Your task to perform on an android device: turn pop-ups on in chrome Image 0: 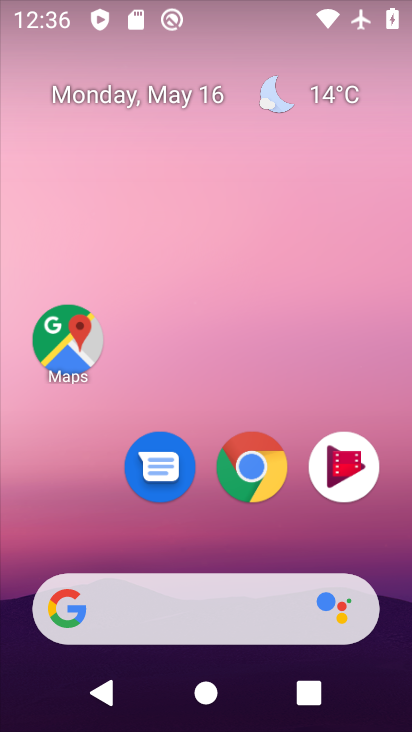
Step 0: drag from (258, 502) to (387, 120)
Your task to perform on an android device: turn pop-ups on in chrome Image 1: 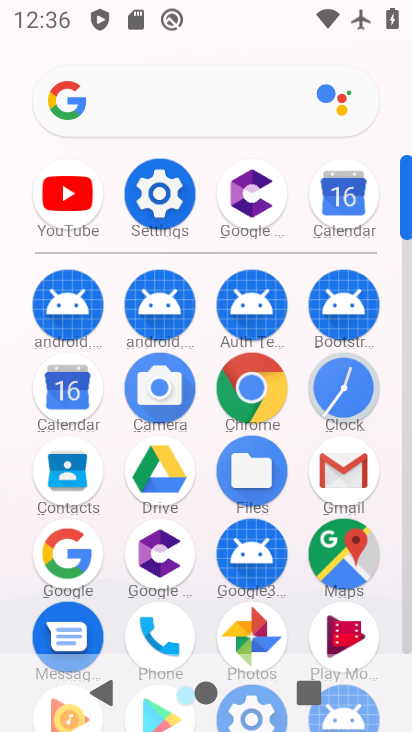
Step 1: click (269, 368)
Your task to perform on an android device: turn pop-ups on in chrome Image 2: 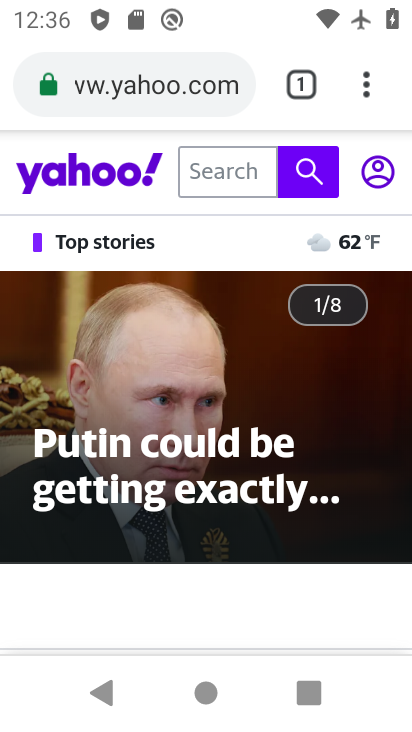
Step 2: click (364, 83)
Your task to perform on an android device: turn pop-ups on in chrome Image 3: 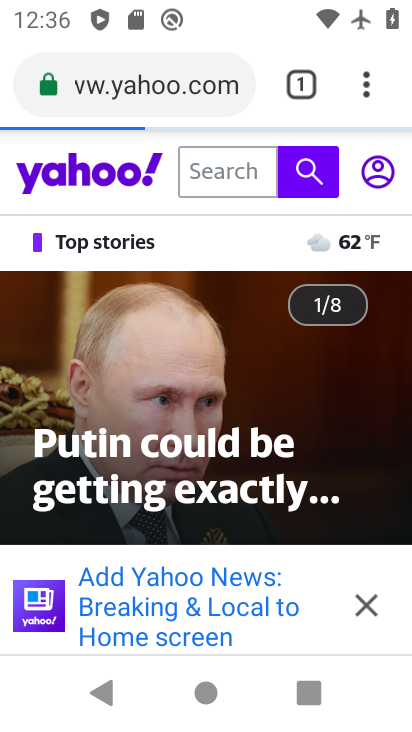
Step 3: click (357, 83)
Your task to perform on an android device: turn pop-ups on in chrome Image 4: 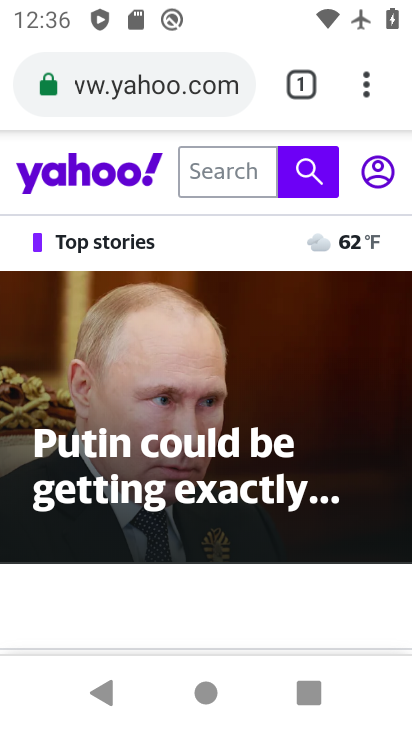
Step 4: click (361, 78)
Your task to perform on an android device: turn pop-ups on in chrome Image 5: 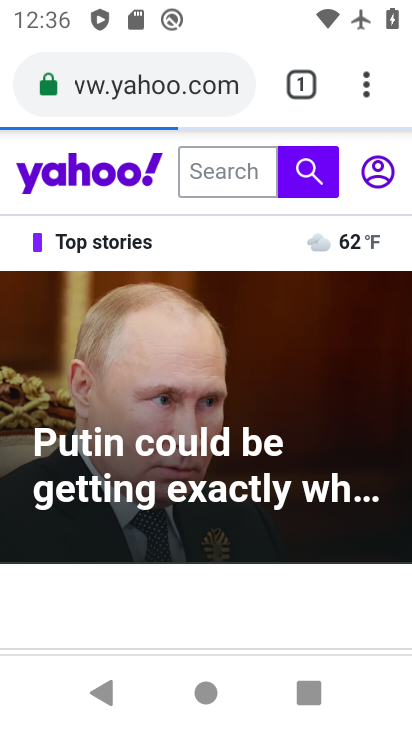
Step 5: click (361, 76)
Your task to perform on an android device: turn pop-ups on in chrome Image 6: 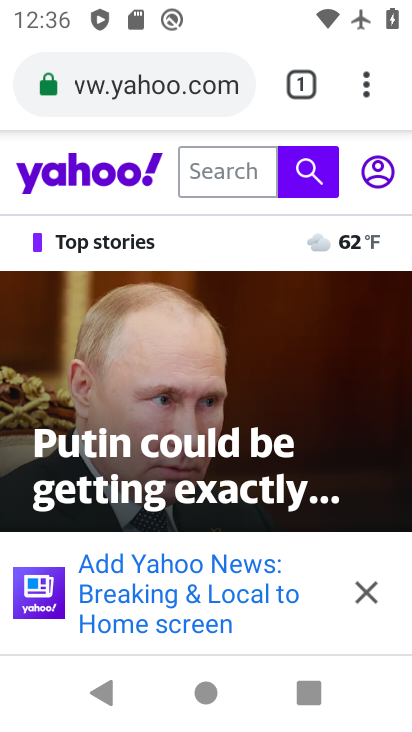
Step 6: click (352, 80)
Your task to perform on an android device: turn pop-ups on in chrome Image 7: 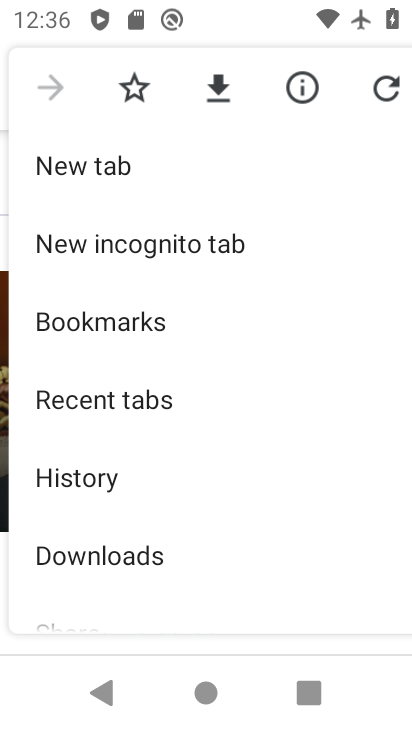
Step 7: drag from (165, 524) to (283, 207)
Your task to perform on an android device: turn pop-ups on in chrome Image 8: 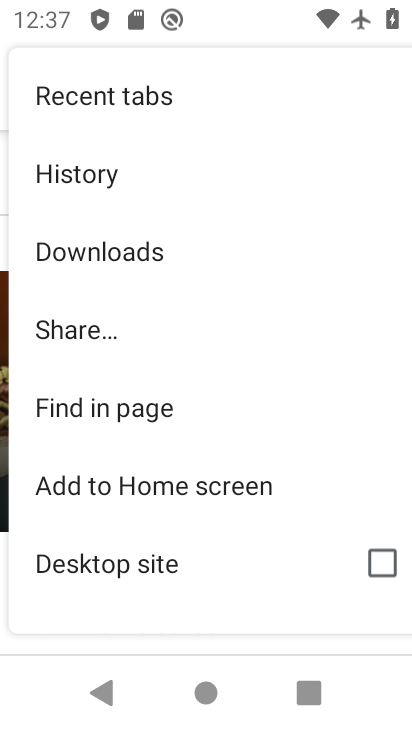
Step 8: drag from (158, 552) to (289, 239)
Your task to perform on an android device: turn pop-ups on in chrome Image 9: 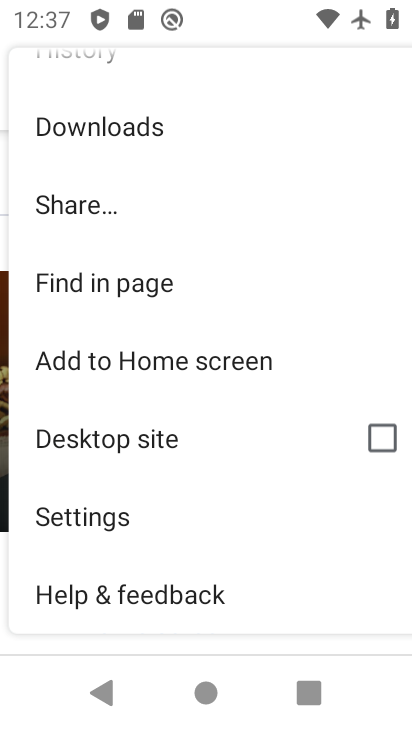
Step 9: click (66, 509)
Your task to perform on an android device: turn pop-ups on in chrome Image 10: 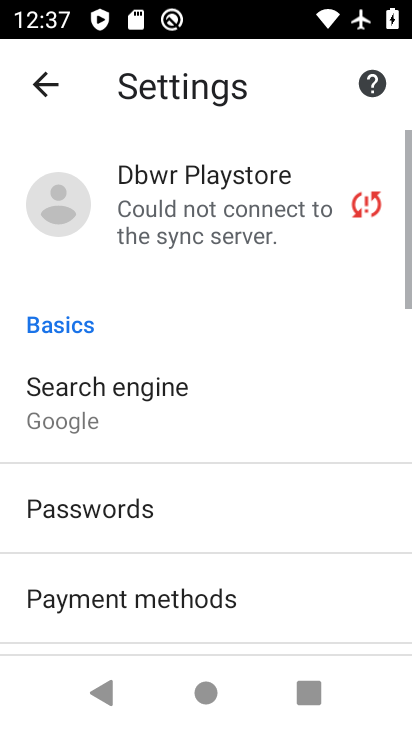
Step 10: drag from (174, 599) to (309, 199)
Your task to perform on an android device: turn pop-ups on in chrome Image 11: 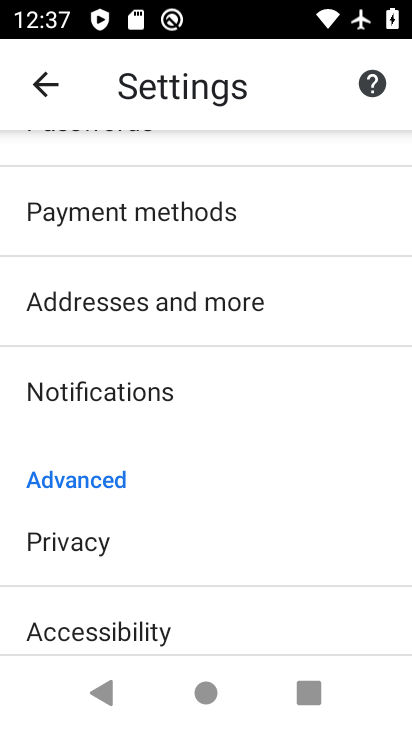
Step 11: drag from (133, 565) to (248, 229)
Your task to perform on an android device: turn pop-ups on in chrome Image 12: 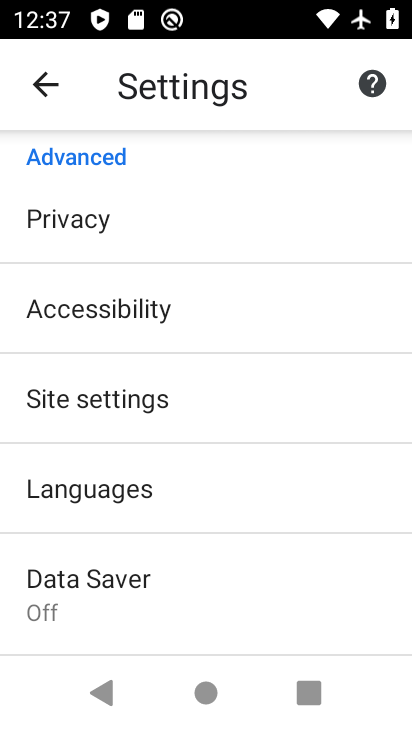
Step 12: drag from (94, 546) to (122, 474)
Your task to perform on an android device: turn pop-ups on in chrome Image 13: 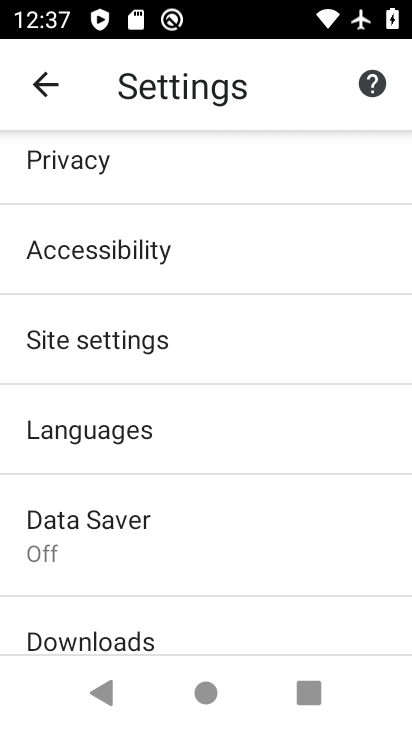
Step 13: click (166, 310)
Your task to perform on an android device: turn pop-ups on in chrome Image 14: 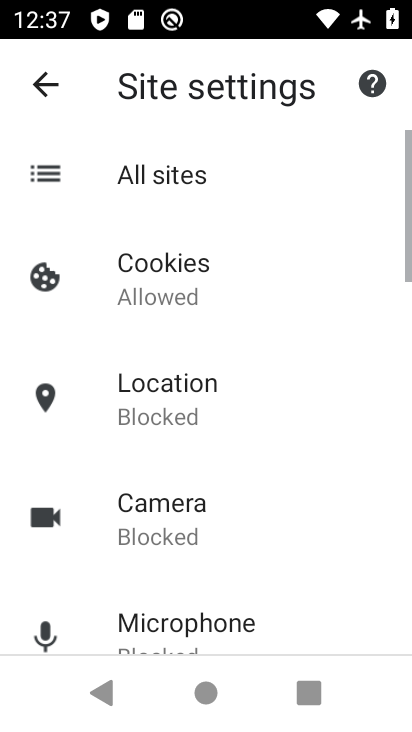
Step 14: drag from (156, 557) to (282, 194)
Your task to perform on an android device: turn pop-ups on in chrome Image 15: 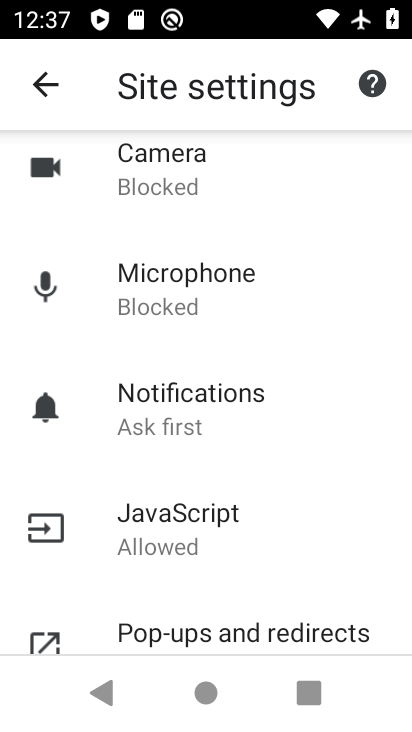
Step 15: drag from (198, 544) to (253, 395)
Your task to perform on an android device: turn pop-ups on in chrome Image 16: 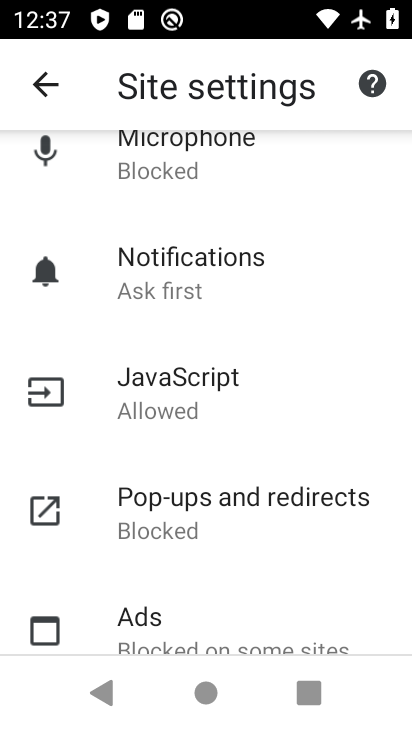
Step 16: click (184, 515)
Your task to perform on an android device: turn pop-ups on in chrome Image 17: 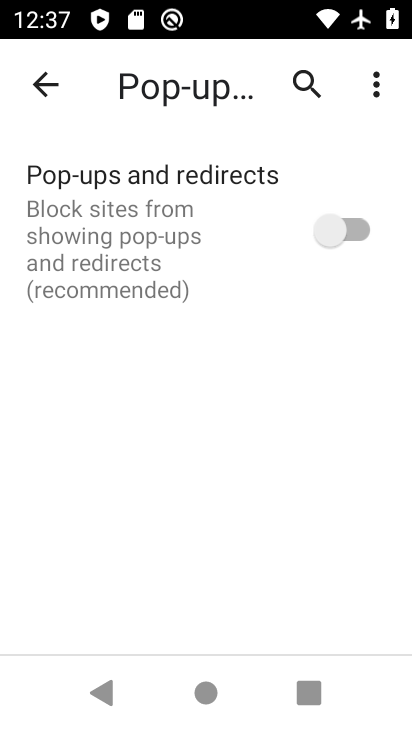
Step 17: click (360, 226)
Your task to perform on an android device: turn pop-ups on in chrome Image 18: 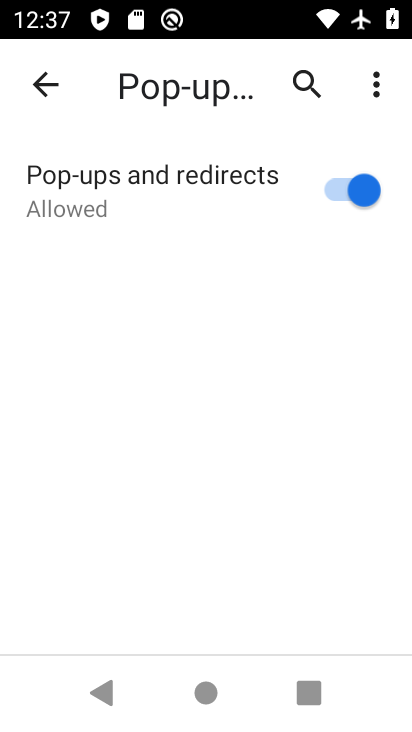
Step 18: task complete